Your task to perform on an android device: Go to ESPN.com Image 0: 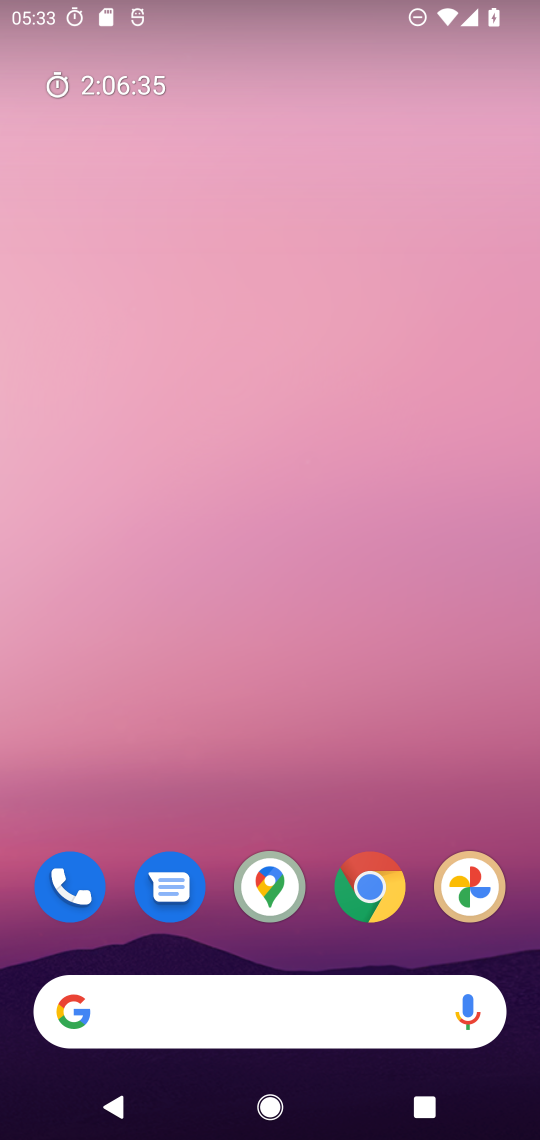
Step 0: press home button
Your task to perform on an android device: Go to ESPN.com Image 1: 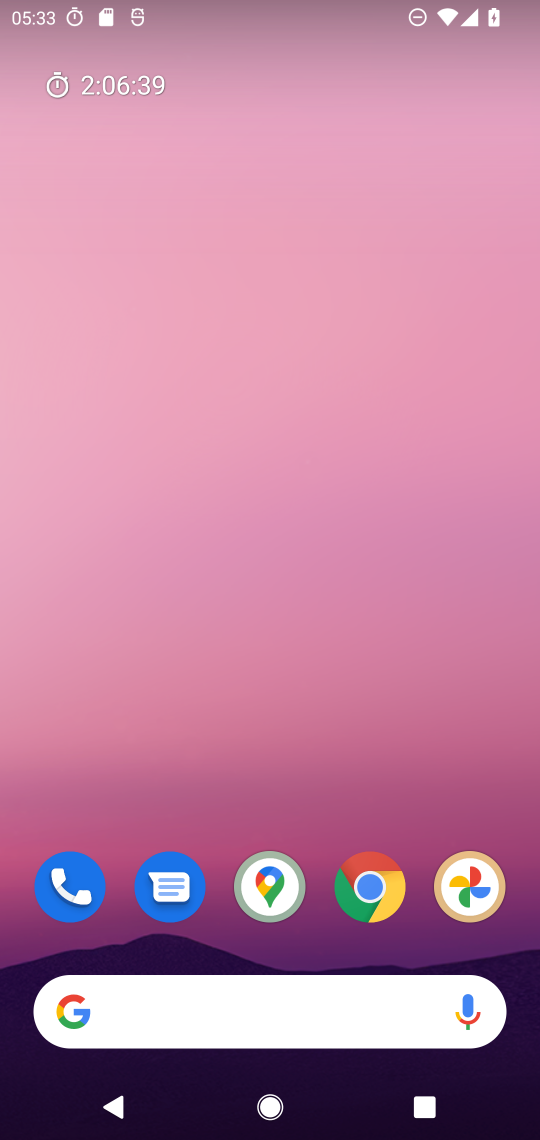
Step 1: drag from (417, 813) to (459, 236)
Your task to perform on an android device: Go to ESPN.com Image 2: 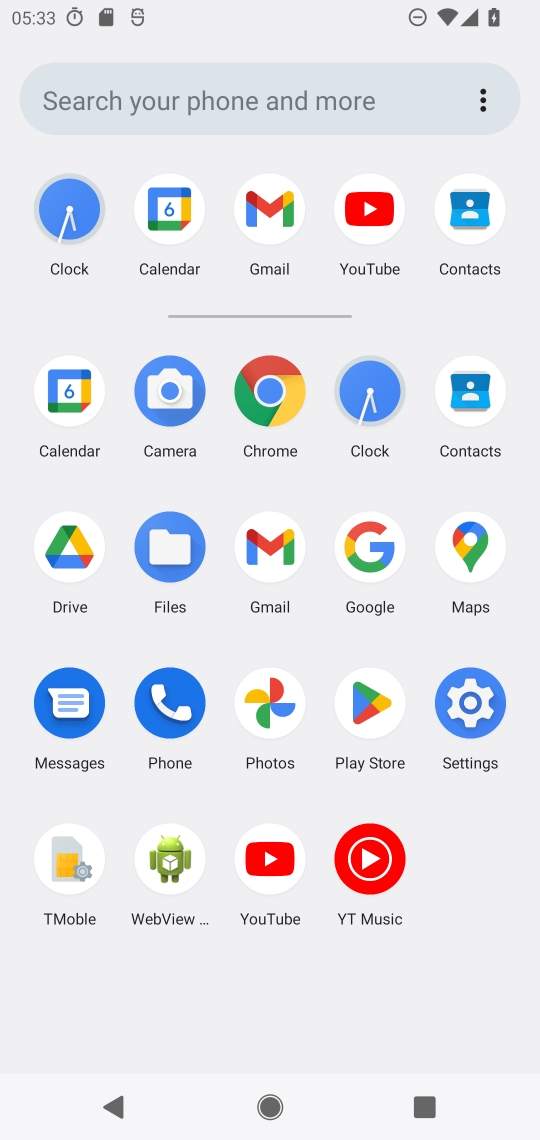
Step 2: click (272, 389)
Your task to perform on an android device: Go to ESPN.com Image 3: 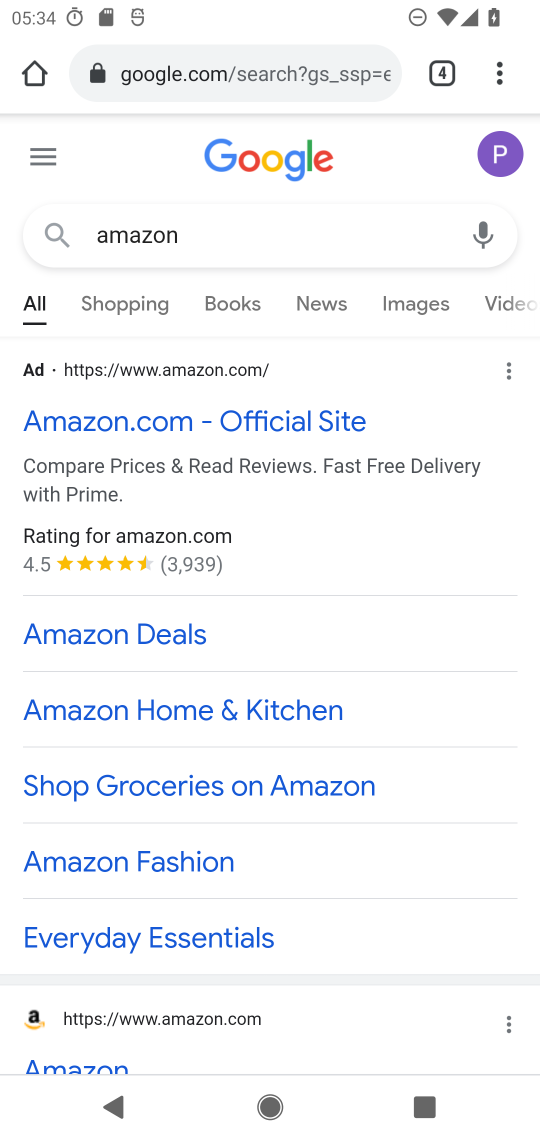
Step 3: click (275, 57)
Your task to perform on an android device: Go to ESPN.com Image 4: 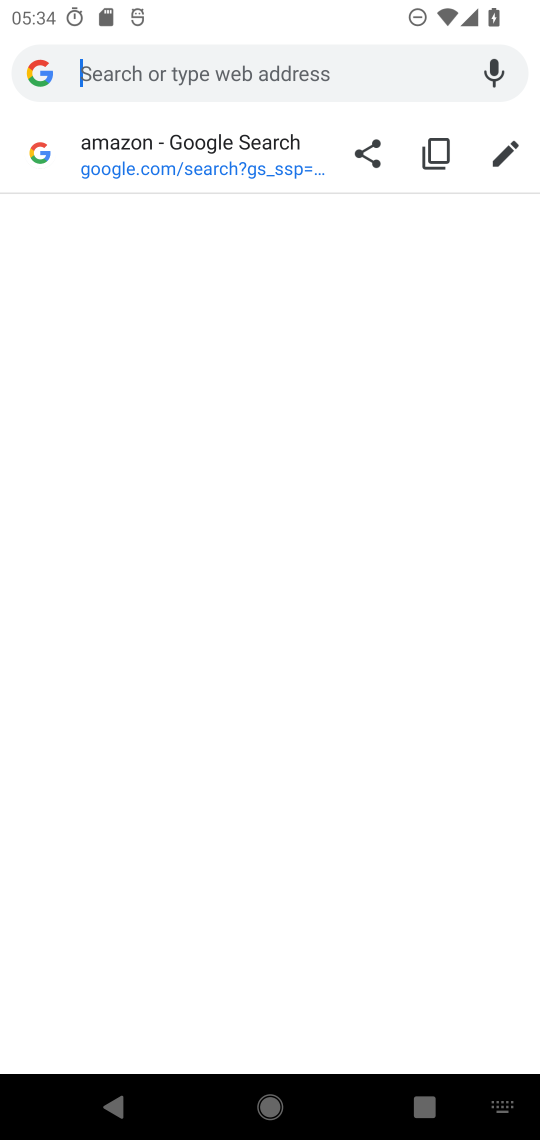
Step 4: type "espn.com"
Your task to perform on an android device: Go to ESPN.com Image 5: 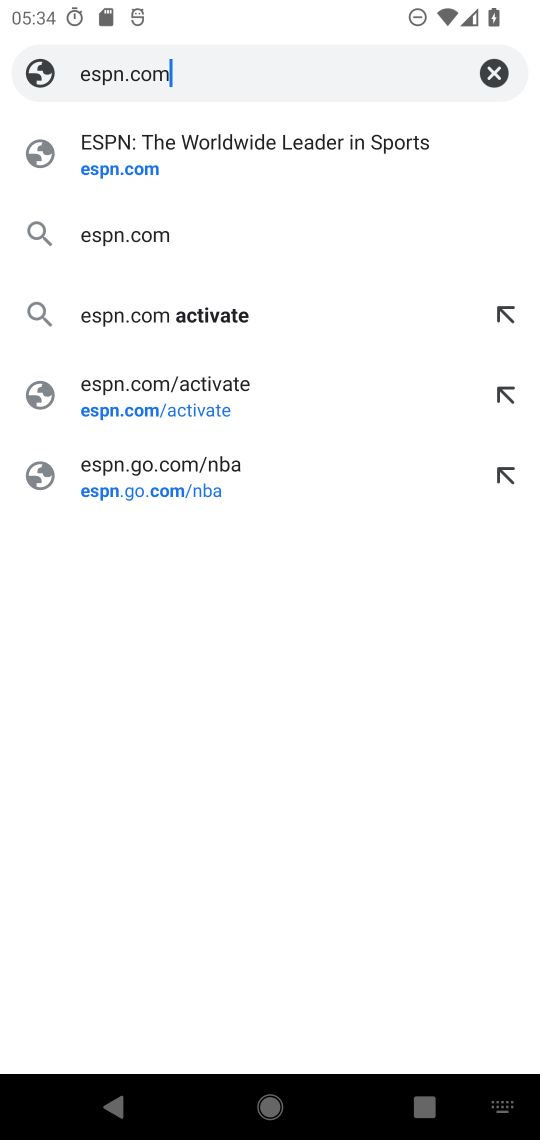
Step 5: click (181, 153)
Your task to perform on an android device: Go to ESPN.com Image 6: 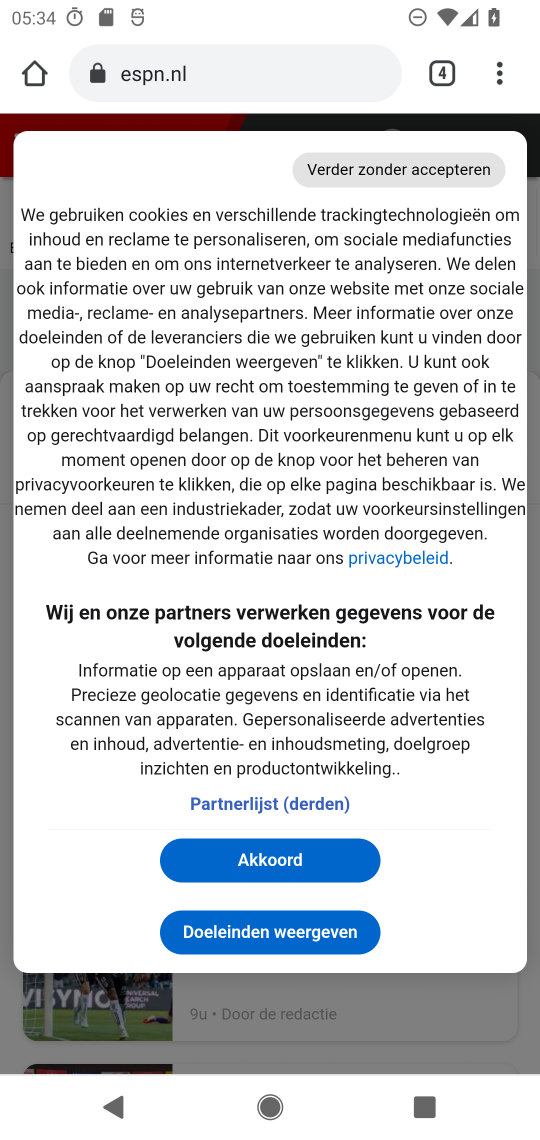
Step 6: task complete